Your task to perform on an android device: open app "Flipkart Online Shopping App" Image 0: 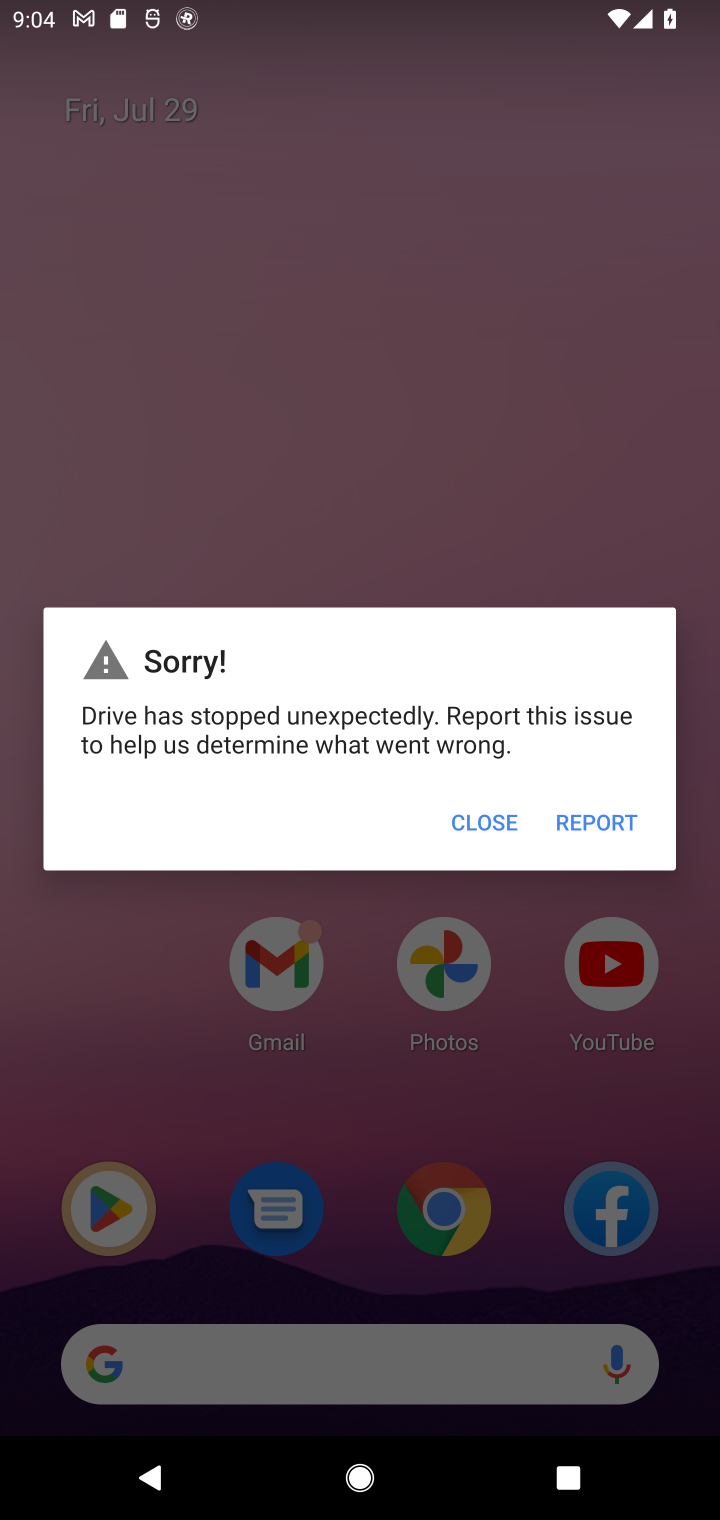
Step 0: press home button
Your task to perform on an android device: open app "Flipkart Online Shopping App" Image 1: 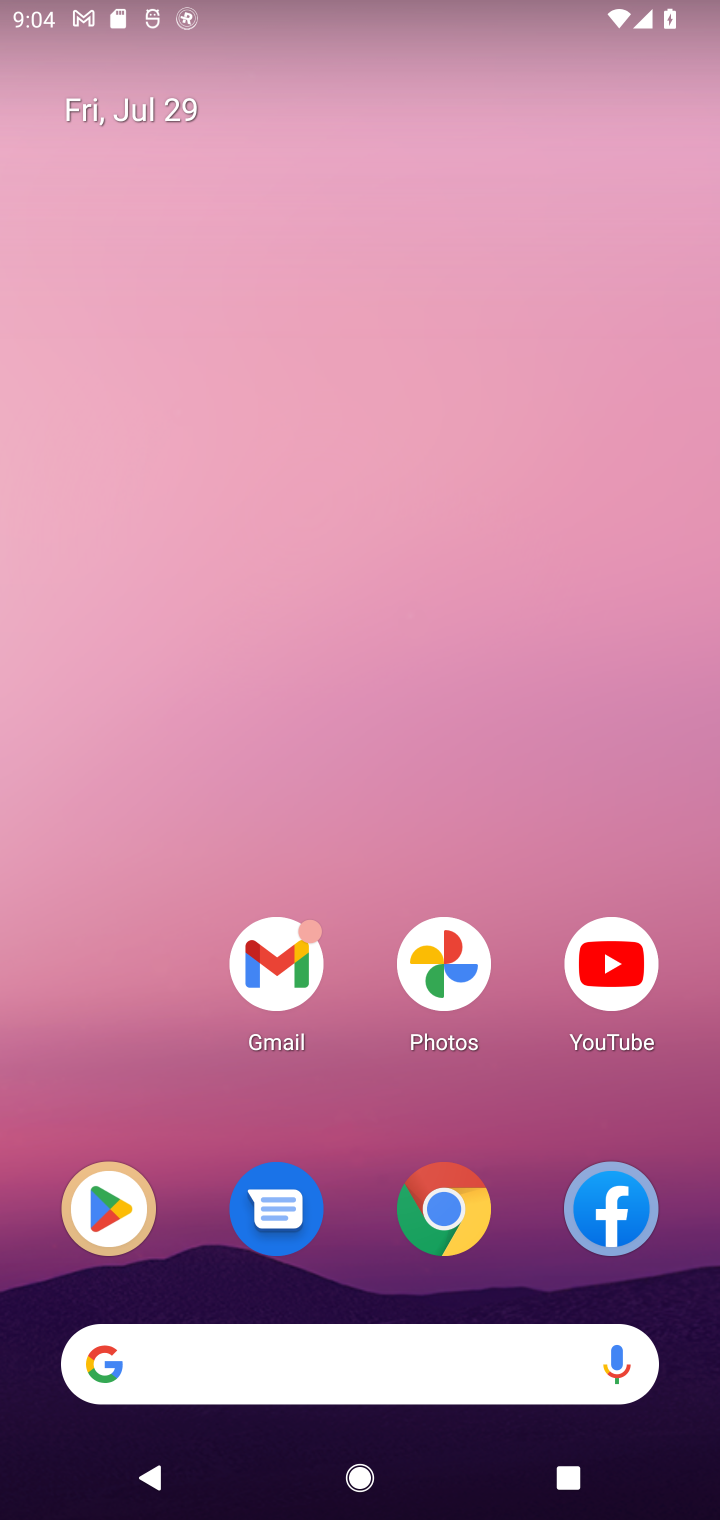
Step 1: drag from (273, 1374) to (464, 96)
Your task to perform on an android device: open app "Flipkart Online Shopping App" Image 2: 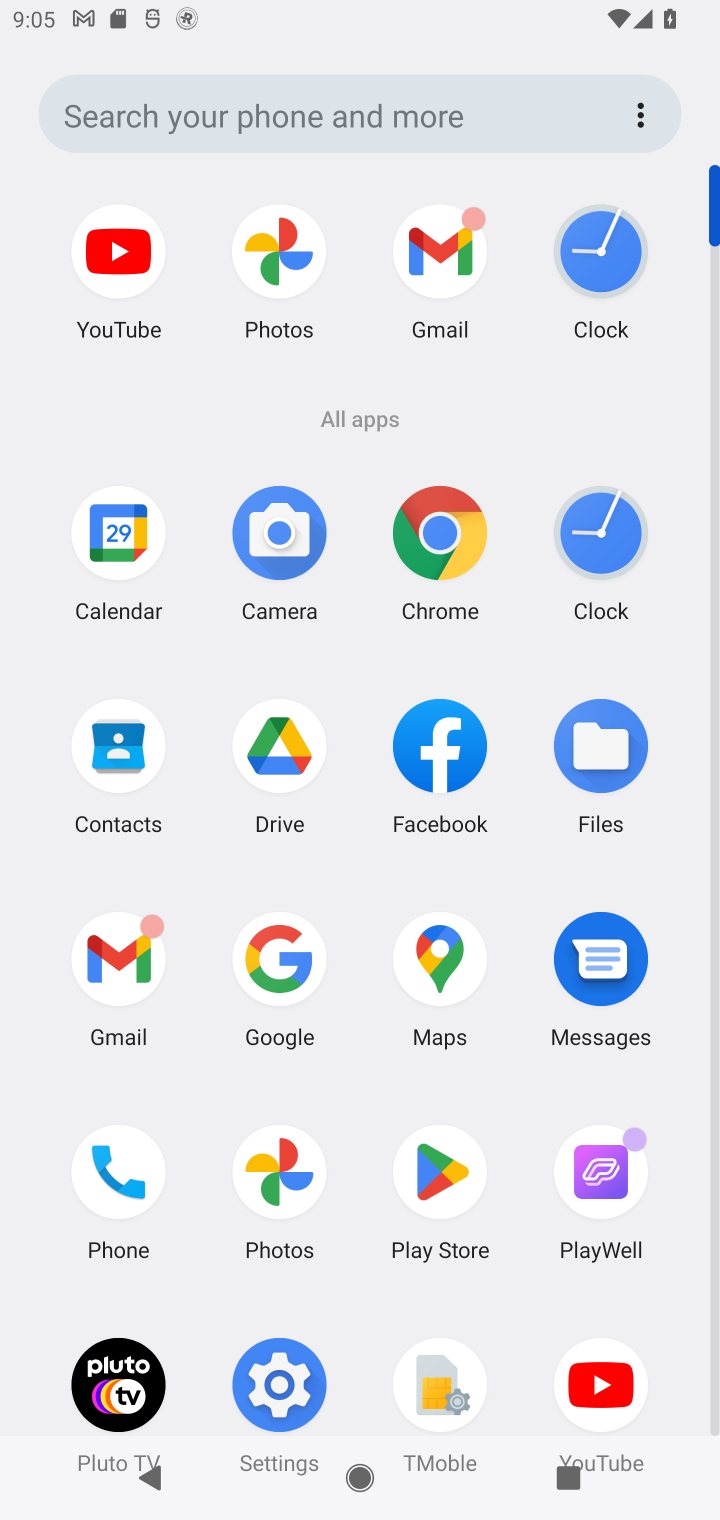
Step 2: click (442, 1181)
Your task to perform on an android device: open app "Flipkart Online Shopping App" Image 3: 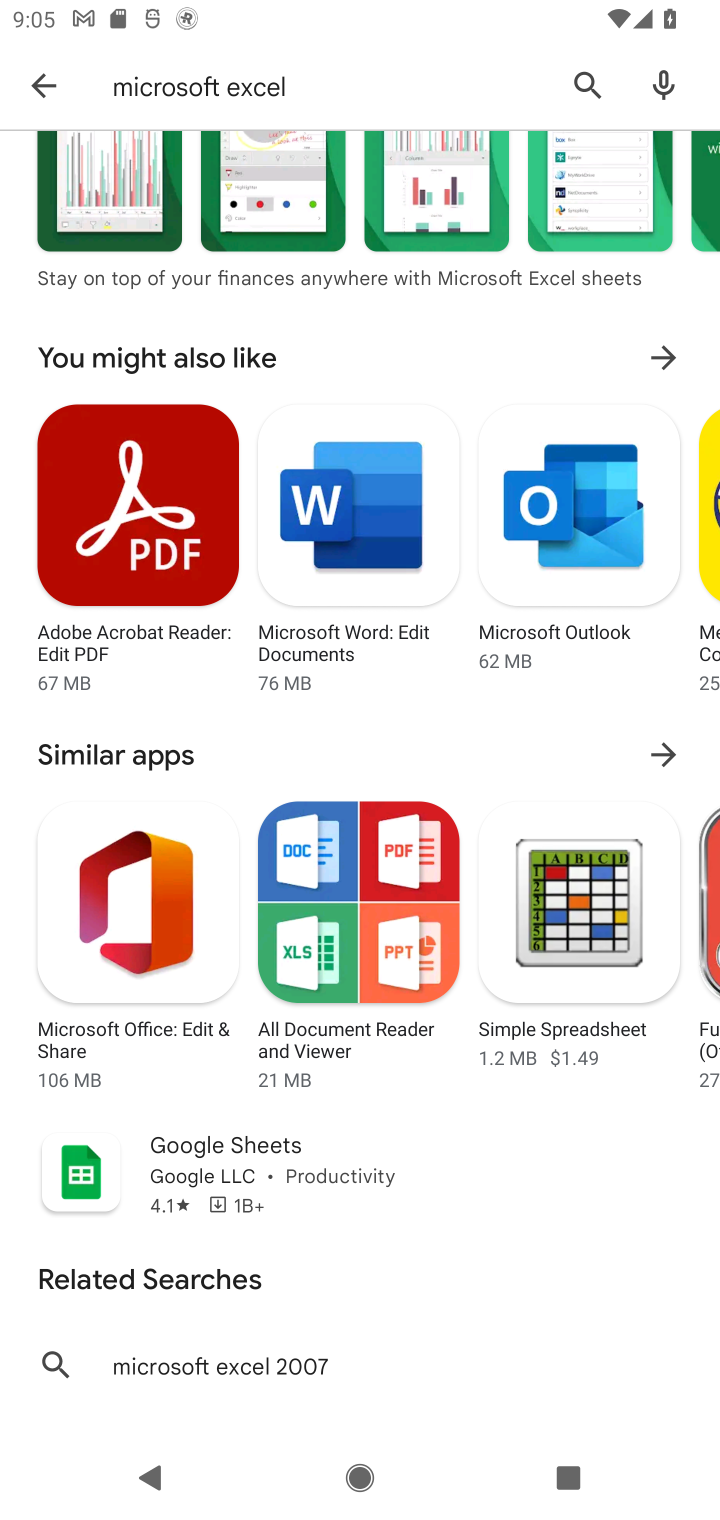
Step 3: click (579, 90)
Your task to perform on an android device: open app "Flipkart Online Shopping App" Image 4: 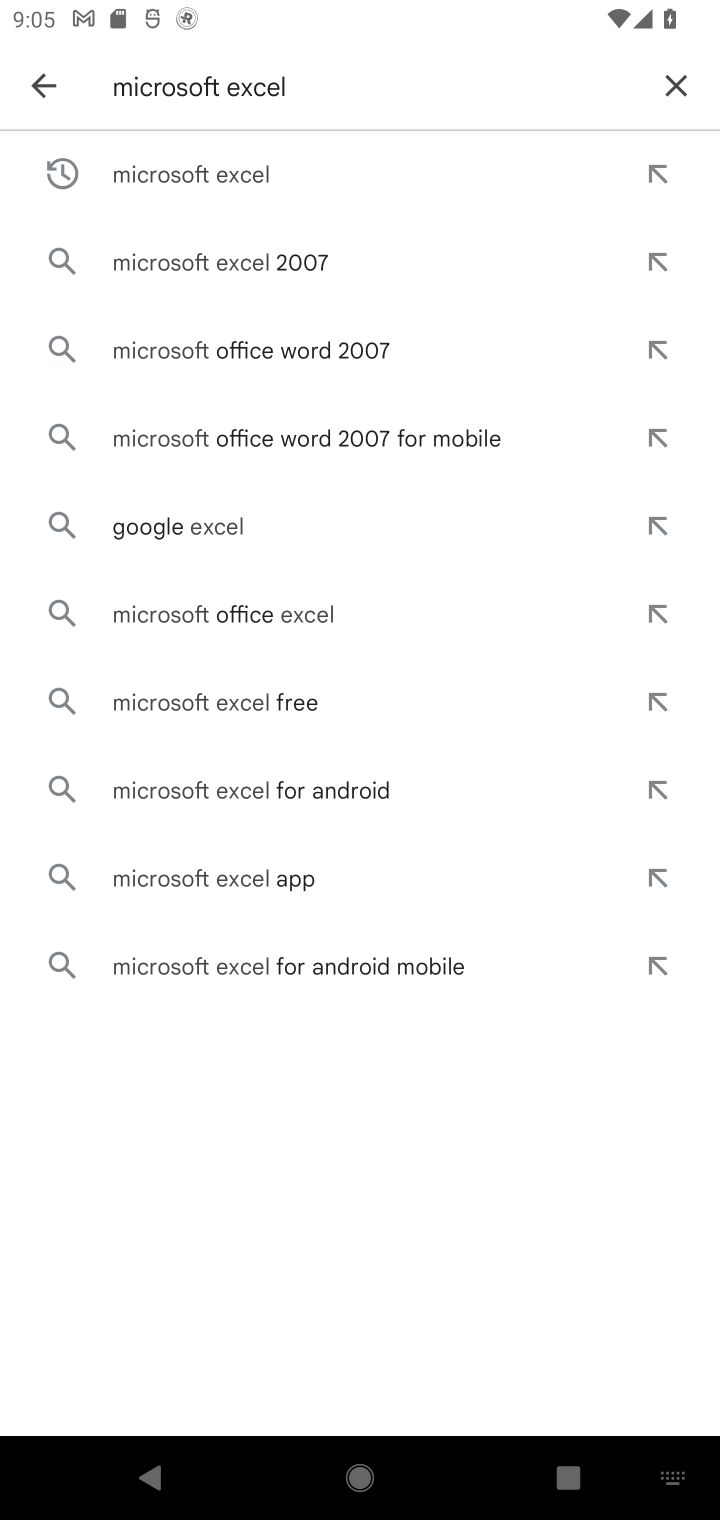
Step 4: click (678, 82)
Your task to perform on an android device: open app "Flipkart Online Shopping App" Image 5: 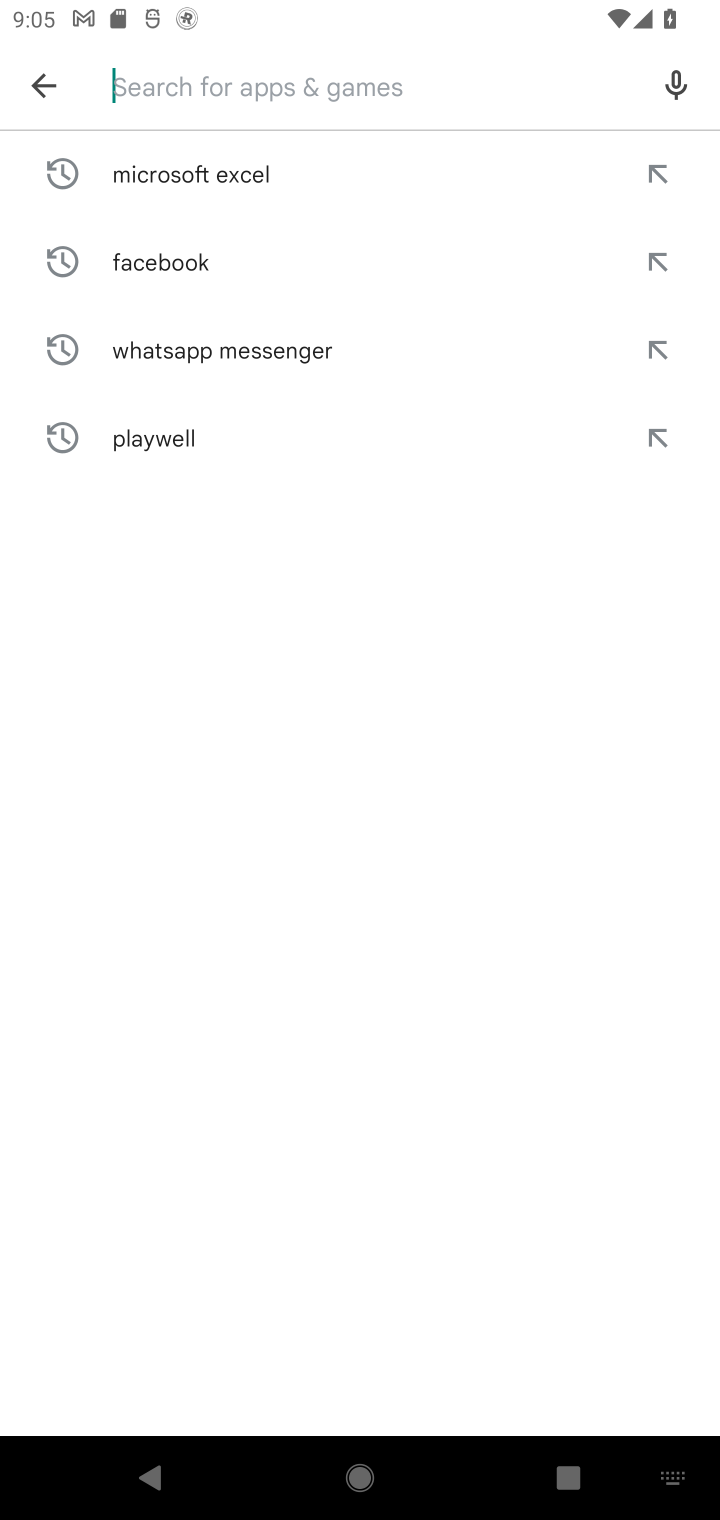
Step 5: type "Flipkart Online Shopping App"
Your task to perform on an android device: open app "Flipkart Online Shopping App" Image 6: 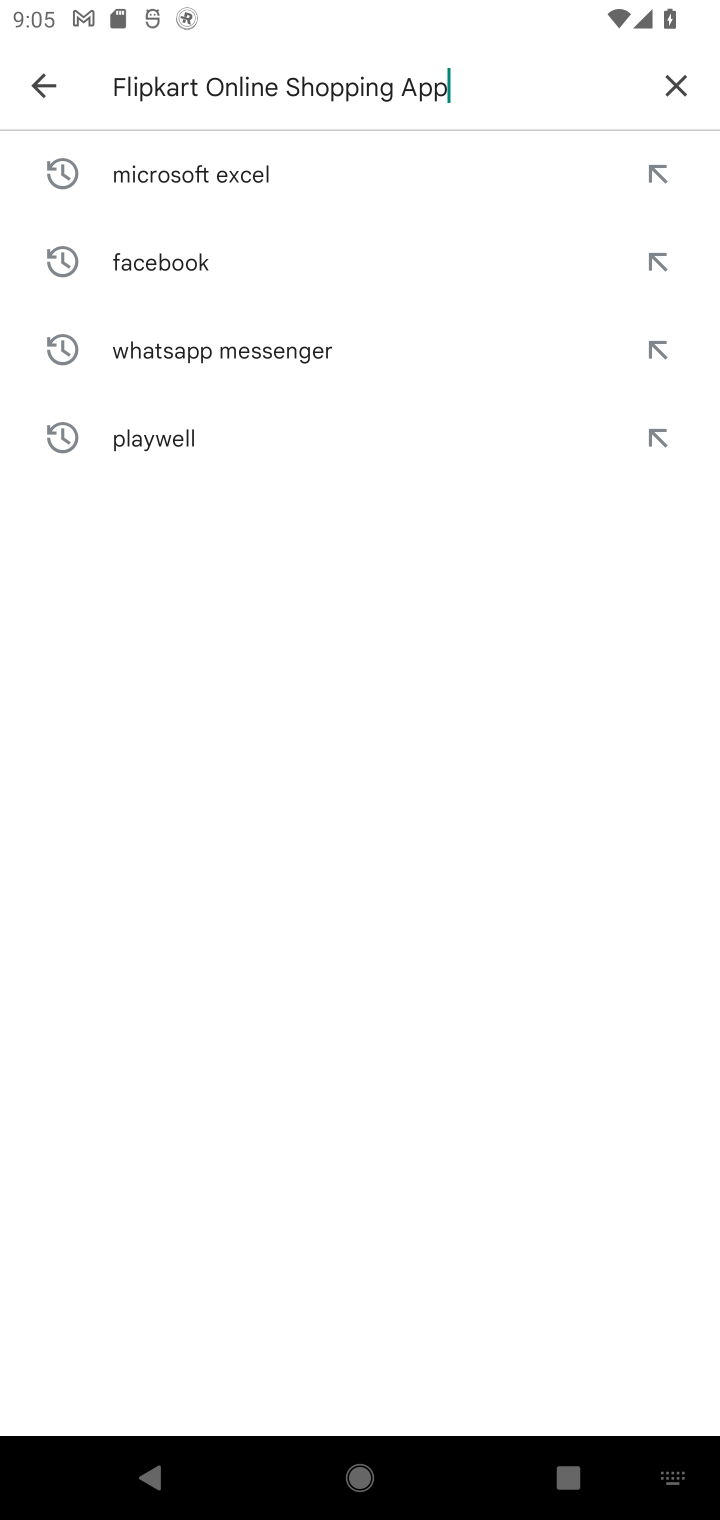
Step 6: type ""
Your task to perform on an android device: open app "Flipkart Online Shopping App" Image 7: 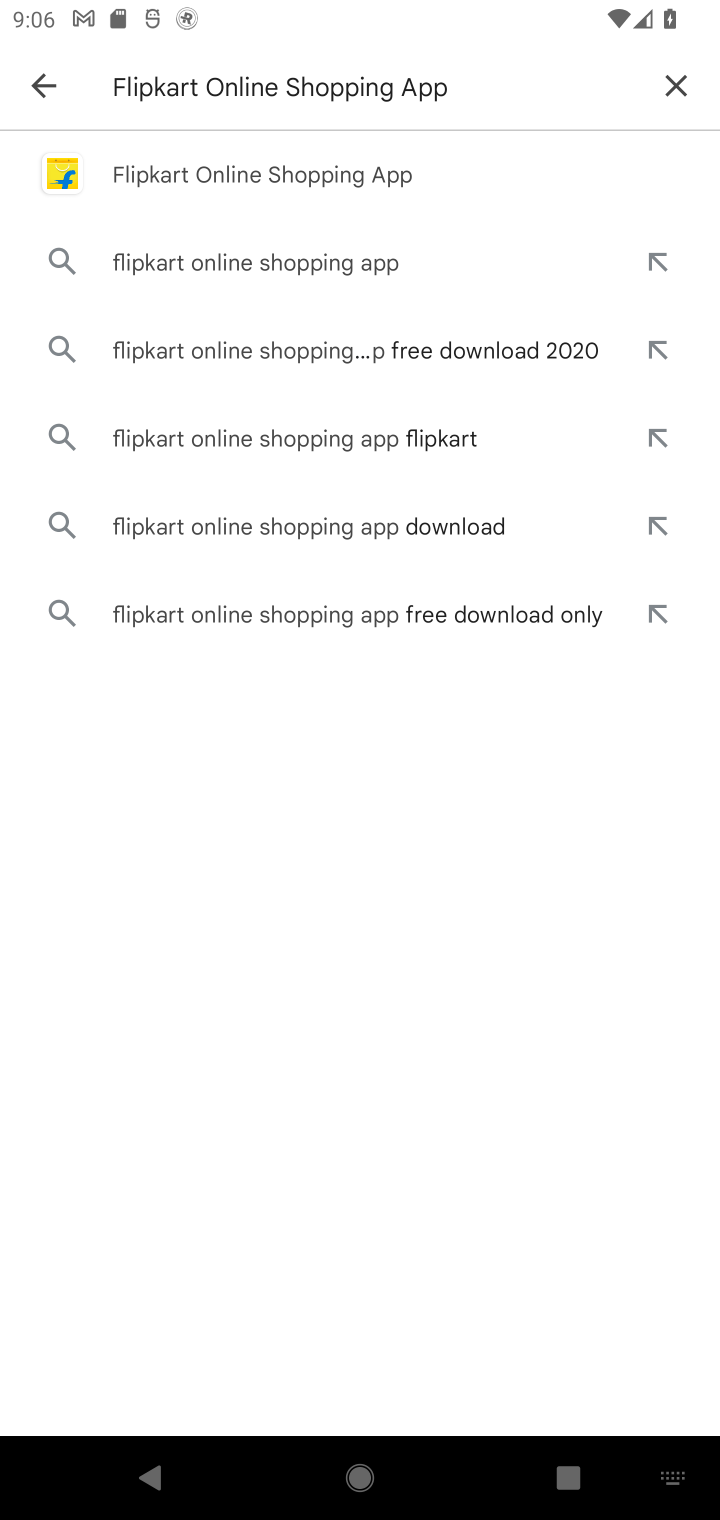
Step 7: click (387, 176)
Your task to perform on an android device: open app "Flipkart Online Shopping App" Image 8: 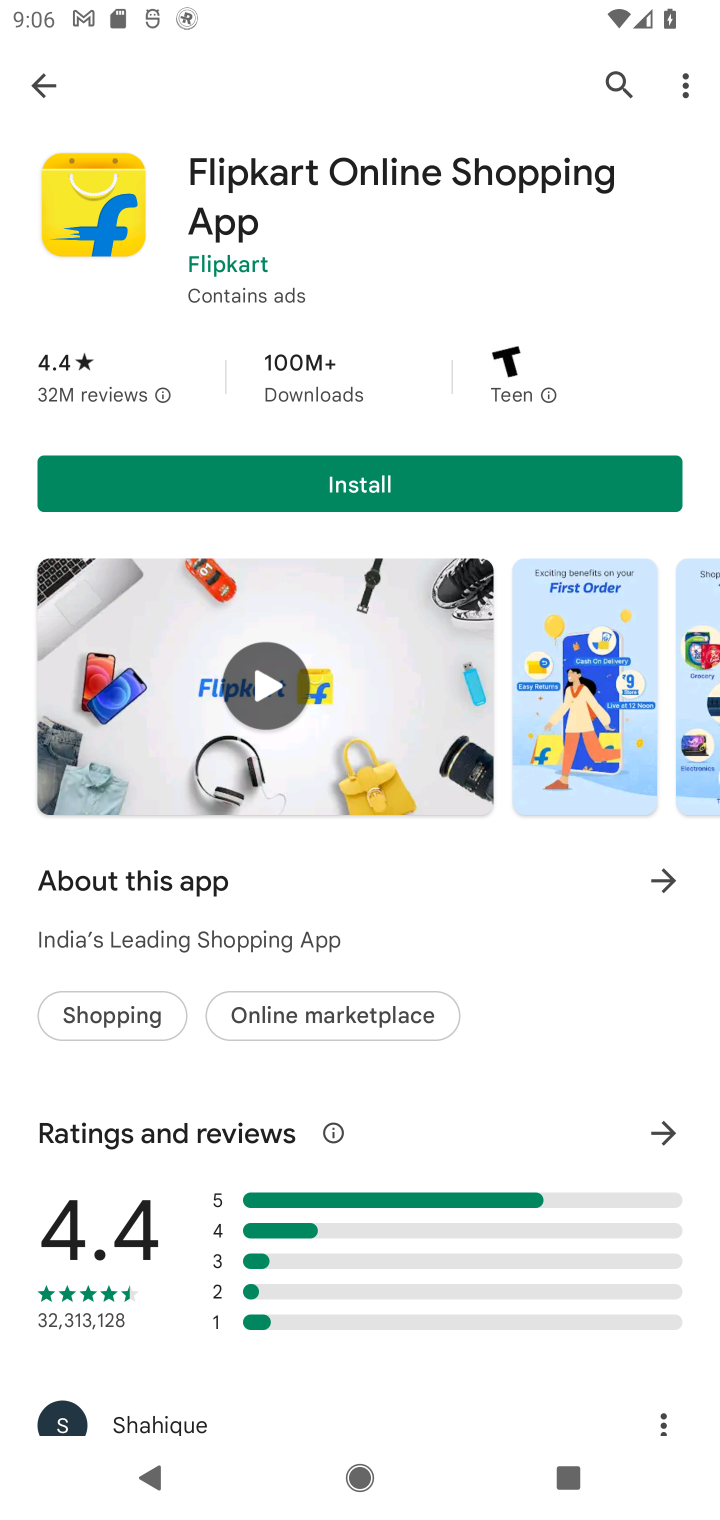
Step 8: task complete